Your task to perform on an android device: star an email in the gmail app Image 0: 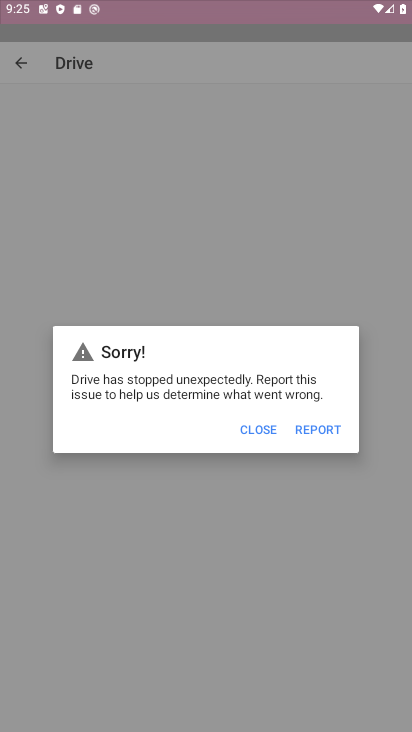
Step 0: press home button
Your task to perform on an android device: star an email in the gmail app Image 1: 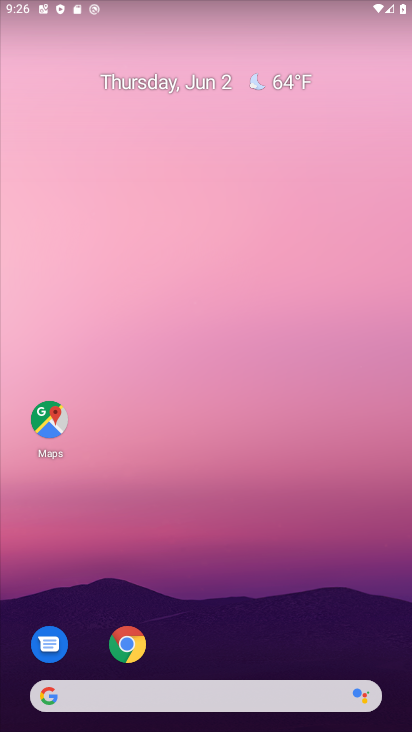
Step 1: drag from (302, 623) to (392, 155)
Your task to perform on an android device: star an email in the gmail app Image 2: 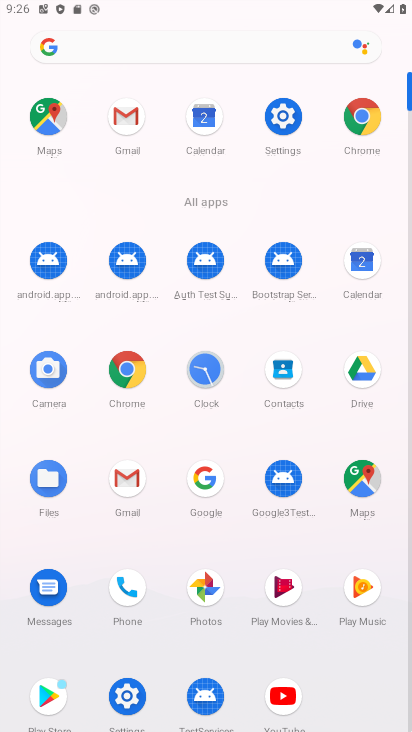
Step 2: click (132, 107)
Your task to perform on an android device: star an email in the gmail app Image 3: 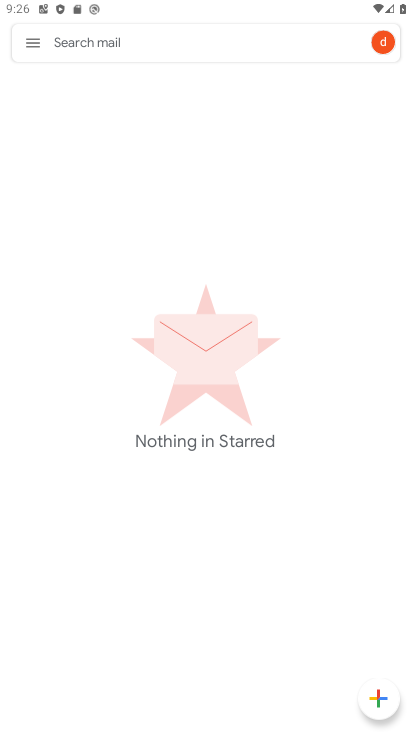
Step 3: click (30, 36)
Your task to perform on an android device: star an email in the gmail app Image 4: 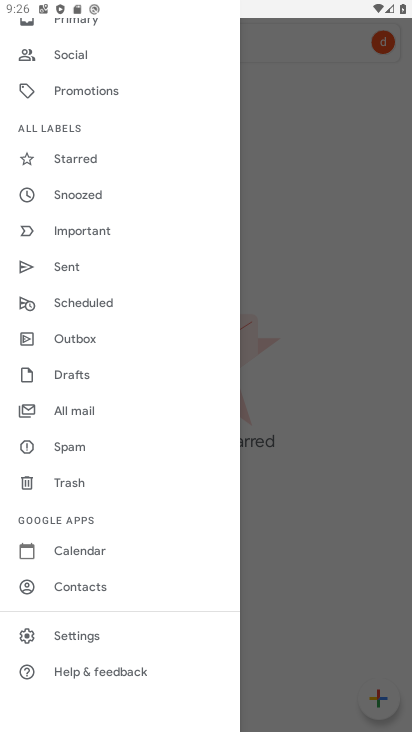
Step 4: task complete